Your task to perform on an android device: Open the map Image 0: 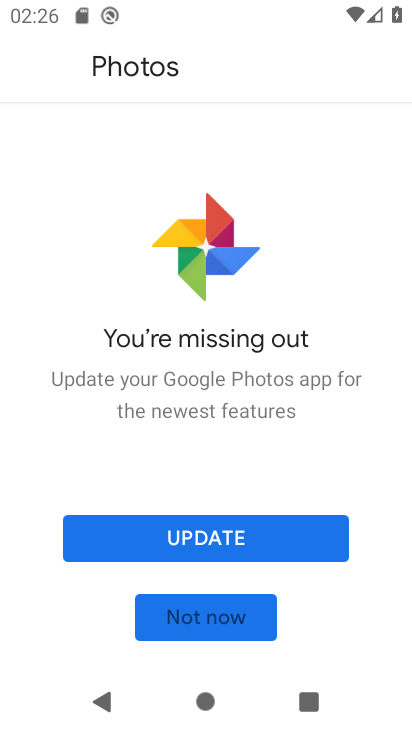
Step 0: click (247, 615)
Your task to perform on an android device: Open the map Image 1: 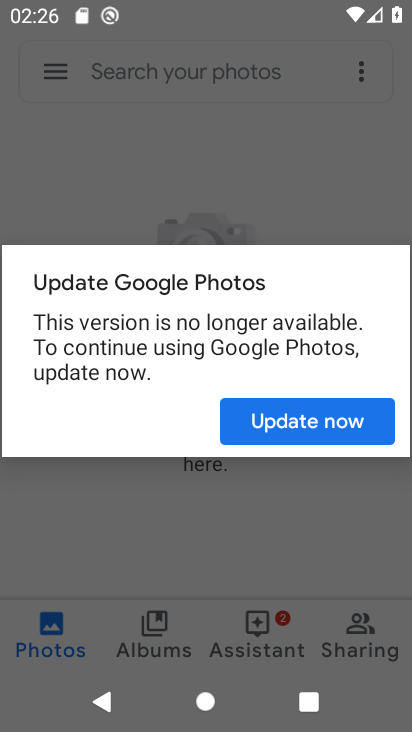
Step 1: press home button
Your task to perform on an android device: Open the map Image 2: 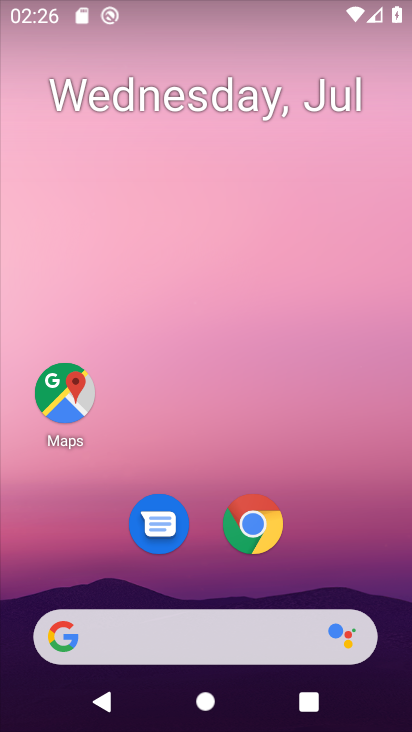
Step 2: click (73, 408)
Your task to perform on an android device: Open the map Image 3: 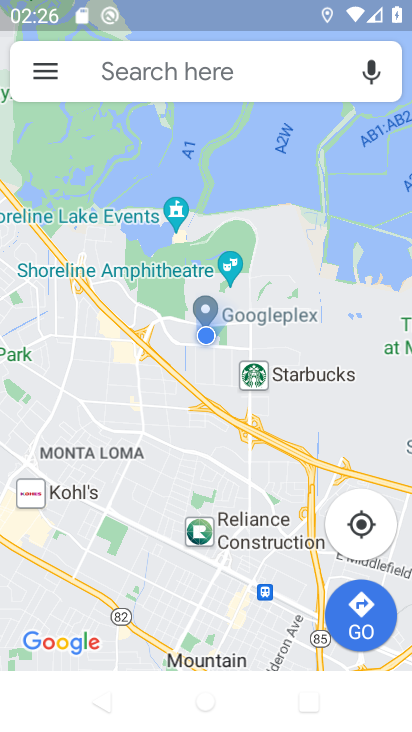
Step 3: task complete